Your task to perform on an android device: Go to internet settings Image 0: 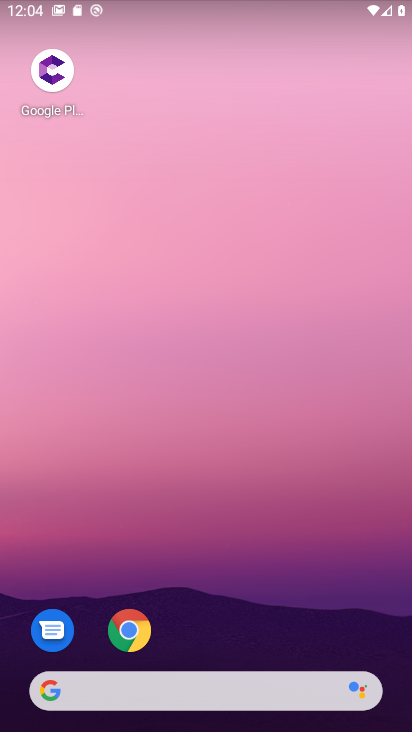
Step 0: drag from (219, 652) to (401, 4)
Your task to perform on an android device: Go to internet settings Image 1: 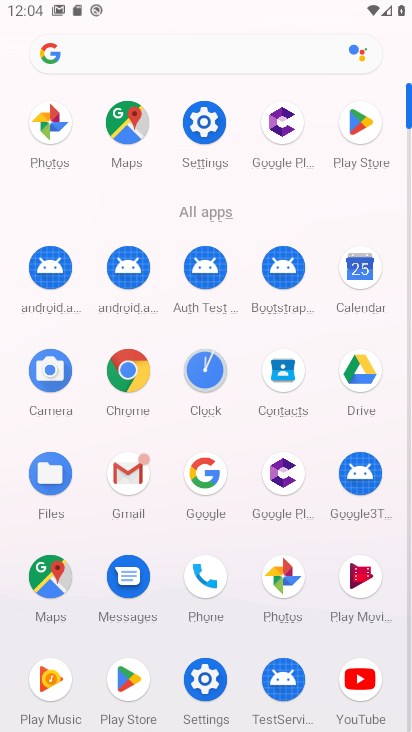
Step 1: click (189, 692)
Your task to perform on an android device: Go to internet settings Image 2: 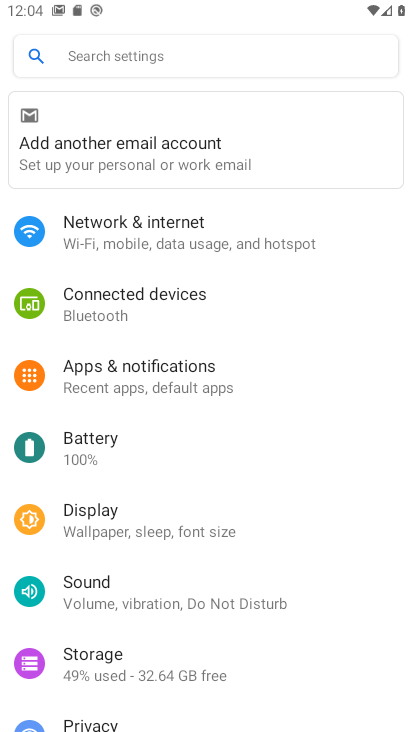
Step 2: click (174, 239)
Your task to perform on an android device: Go to internet settings Image 3: 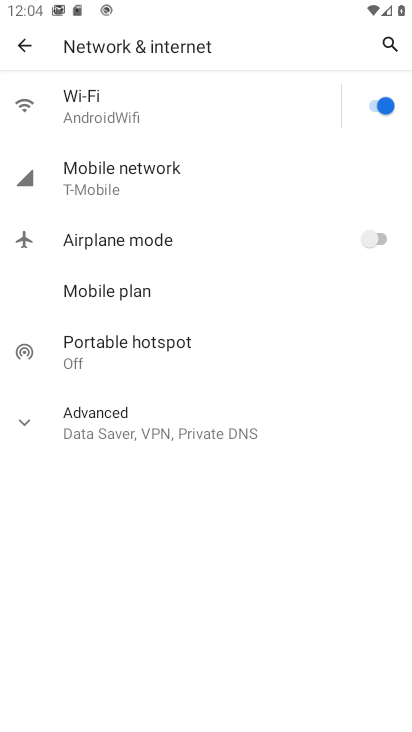
Step 3: click (143, 194)
Your task to perform on an android device: Go to internet settings Image 4: 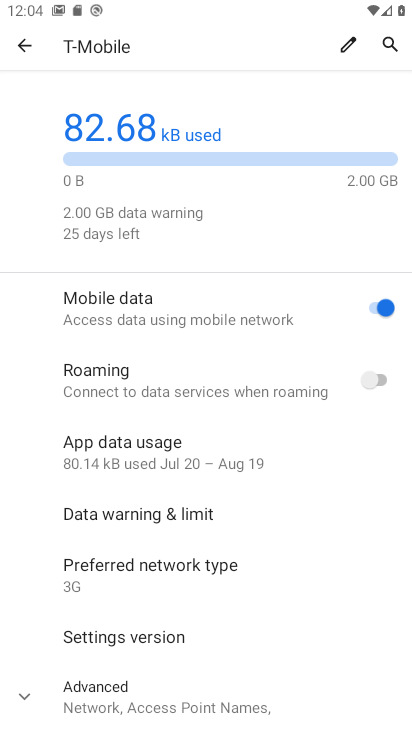
Step 4: task complete